Your task to perform on an android device: show emergency info Image 0: 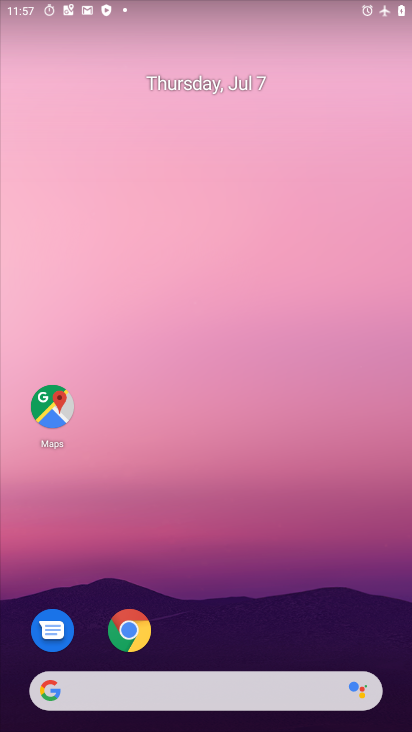
Step 0: drag from (202, 633) to (210, 244)
Your task to perform on an android device: show emergency info Image 1: 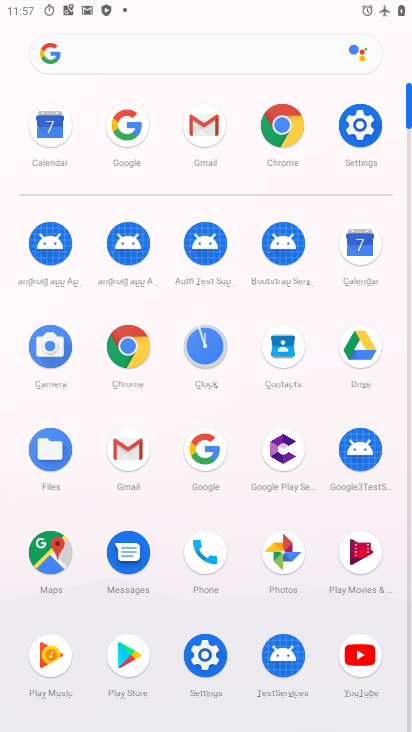
Step 1: click (353, 135)
Your task to perform on an android device: show emergency info Image 2: 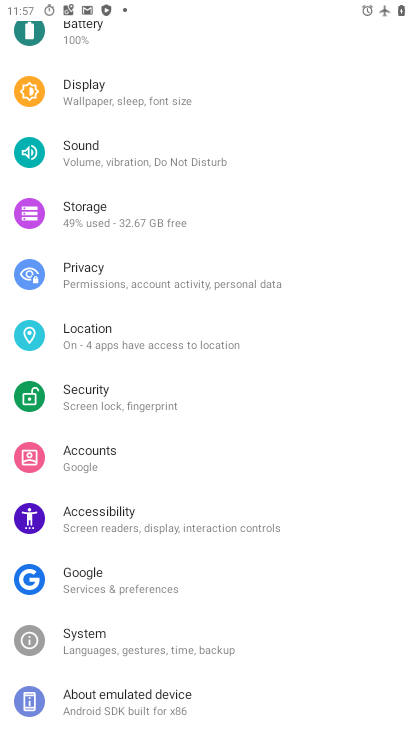
Step 2: drag from (193, 668) to (212, 321)
Your task to perform on an android device: show emergency info Image 3: 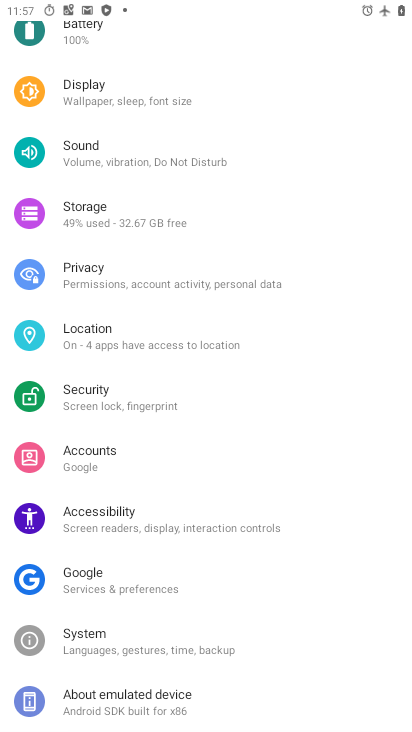
Step 3: click (111, 695)
Your task to perform on an android device: show emergency info Image 4: 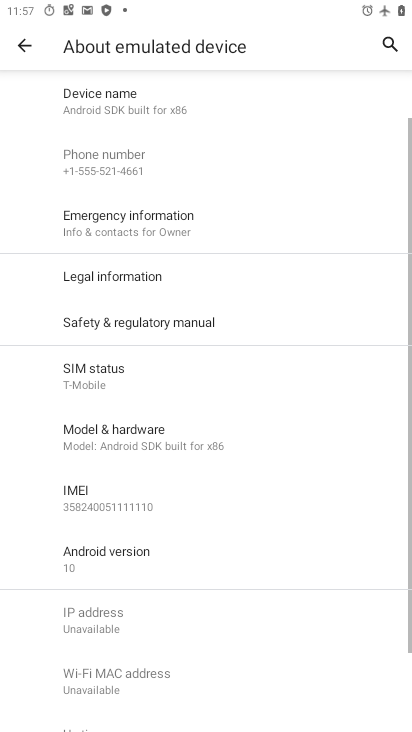
Step 4: click (155, 229)
Your task to perform on an android device: show emergency info Image 5: 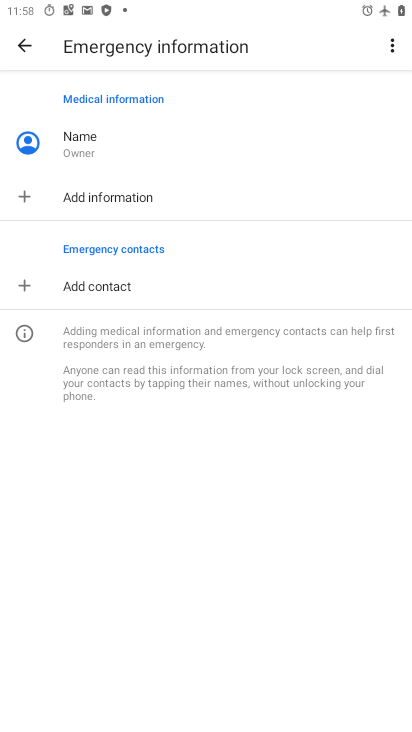
Step 5: task complete